Your task to perform on an android device: Open settings Image 0: 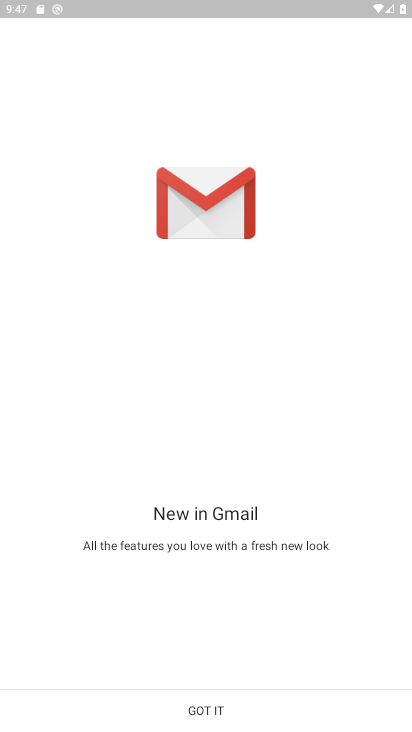
Step 0: press home button
Your task to perform on an android device: Open settings Image 1: 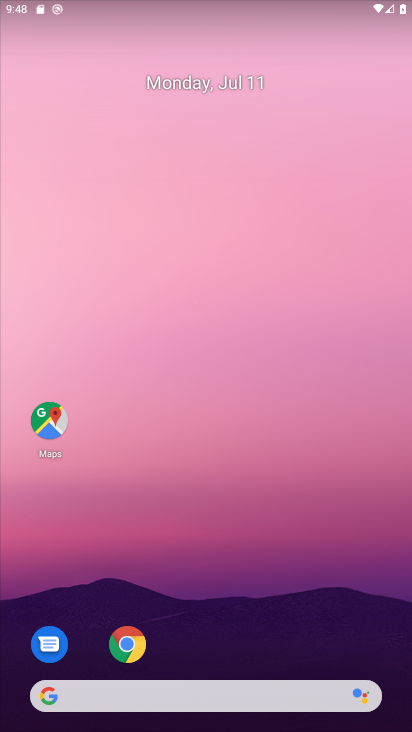
Step 1: drag from (343, 582) to (350, 44)
Your task to perform on an android device: Open settings Image 2: 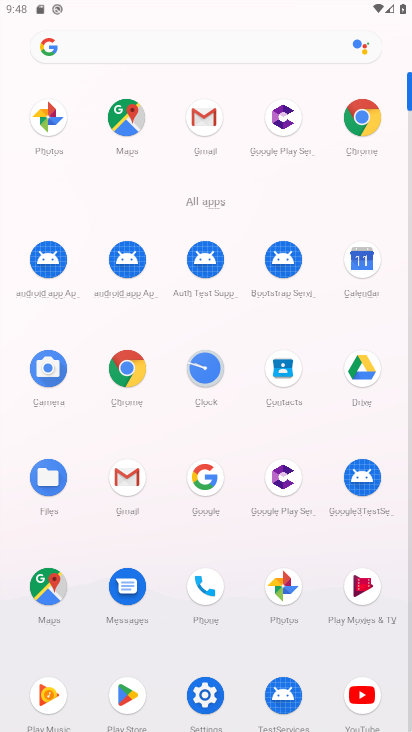
Step 2: click (205, 696)
Your task to perform on an android device: Open settings Image 3: 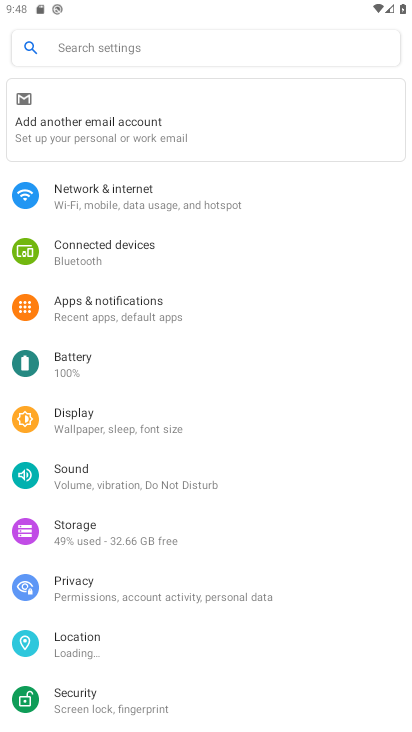
Step 3: task complete